Your task to perform on an android device: Open the calendar and show me this week's events? Image 0: 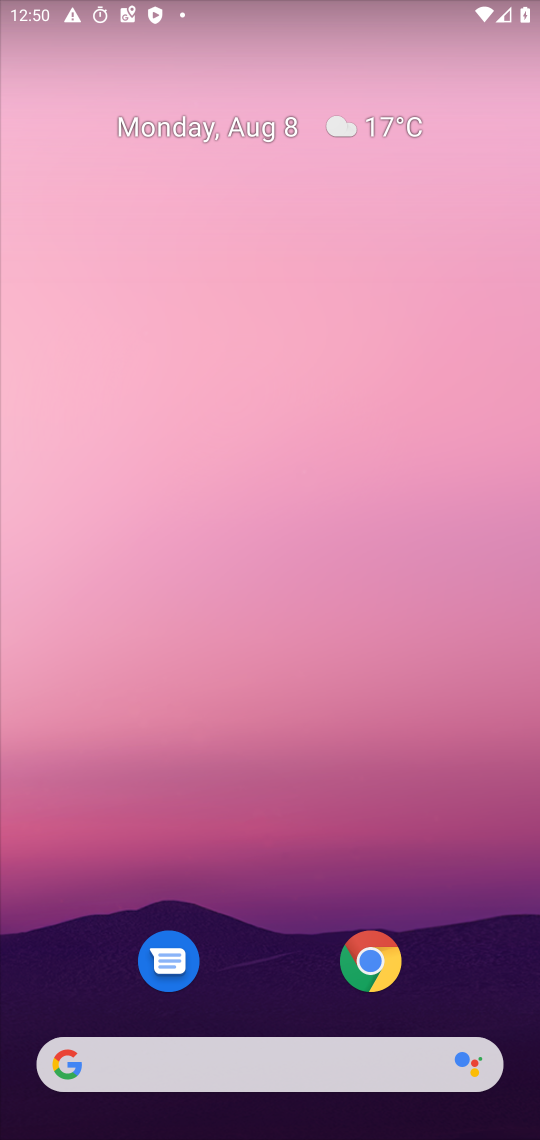
Step 0: drag from (375, 1064) to (481, 17)
Your task to perform on an android device: Open the calendar and show me this week's events? Image 1: 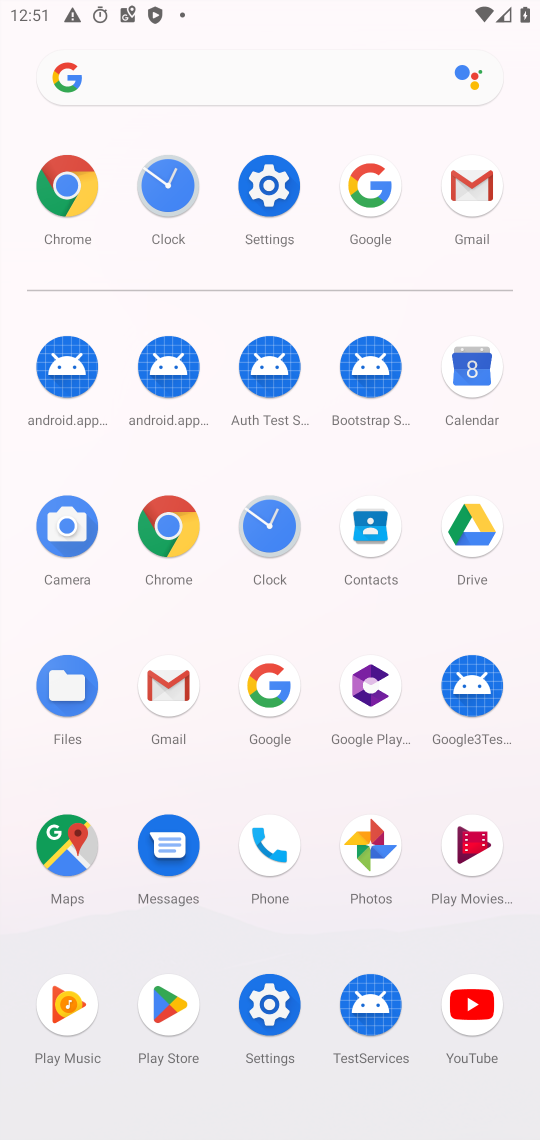
Step 1: click (467, 382)
Your task to perform on an android device: Open the calendar and show me this week's events? Image 2: 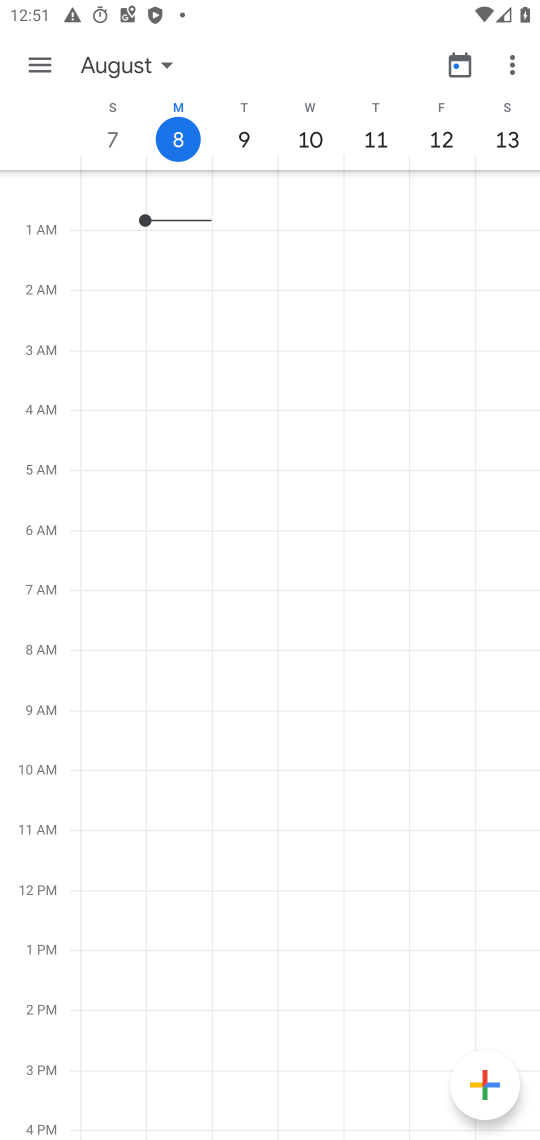
Step 2: click (176, 67)
Your task to perform on an android device: Open the calendar and show me this week's events? Image 3: 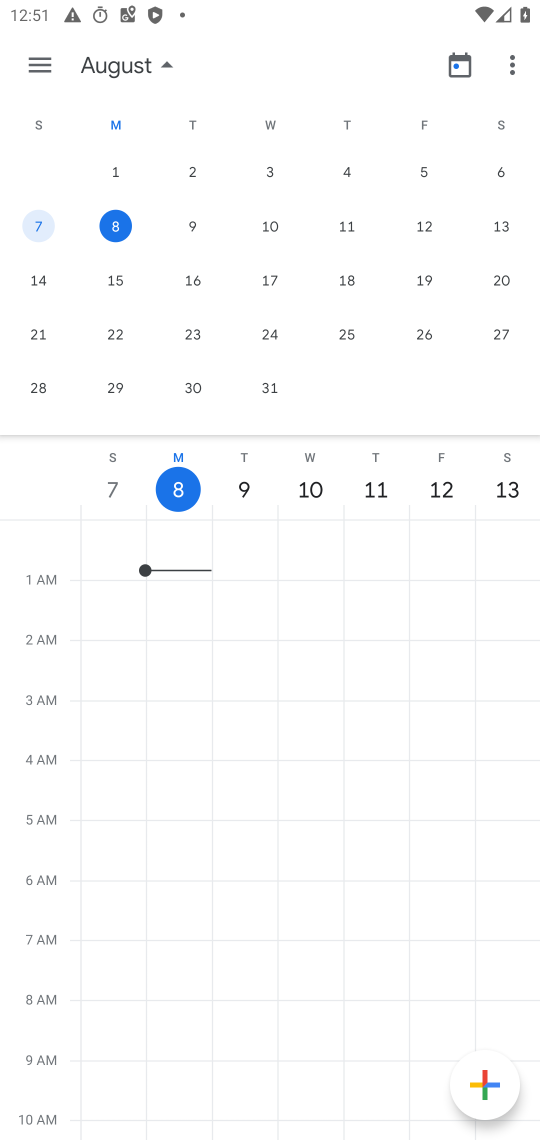
Step 3: click (343, 224)
Your task to perform on an android device: Open the calendar and show me this week's events? Image 4: 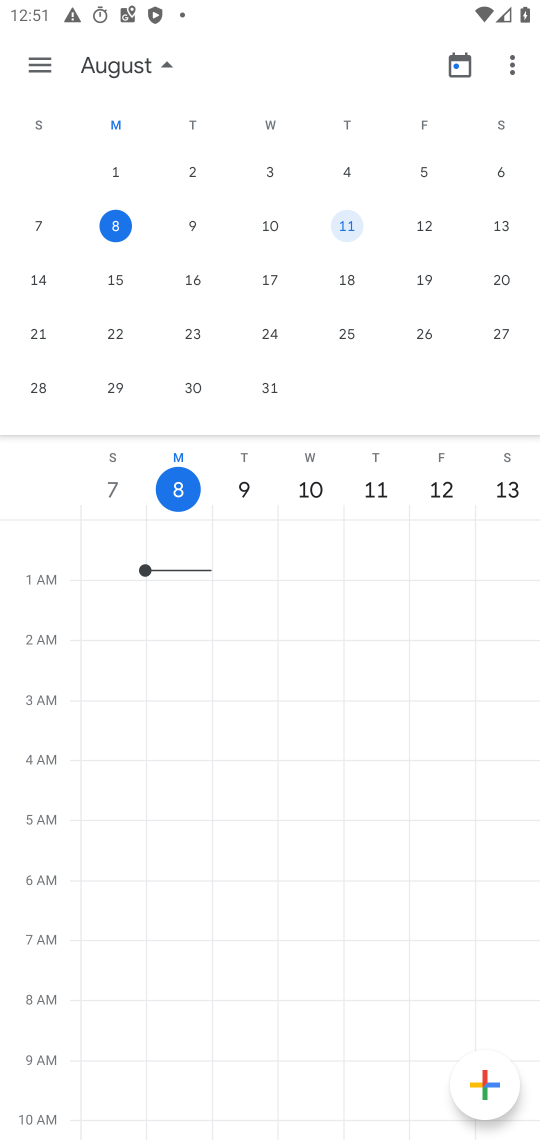
Step 4: task complete